Your task to perform on an android device: turn off javascript in the chrome app Image 0: 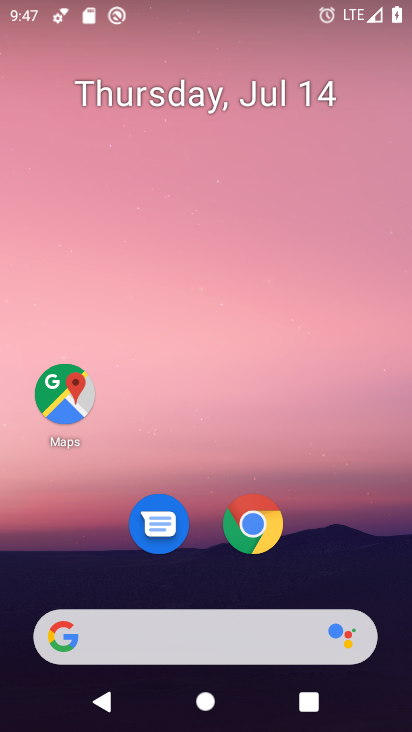
Step 0: click (272, 511)
Your task to perform on an android device: turn off javascript in the chrome app Image 1: 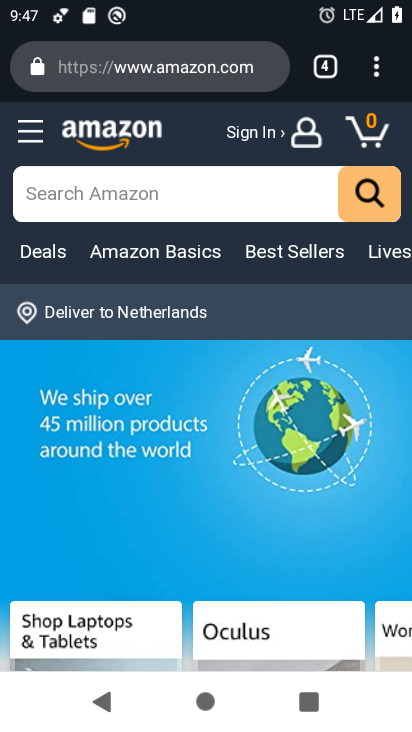
Step 1: click (375, 71)
Your task to perform on an android device: turn off javascript in the chrome app Image 2: 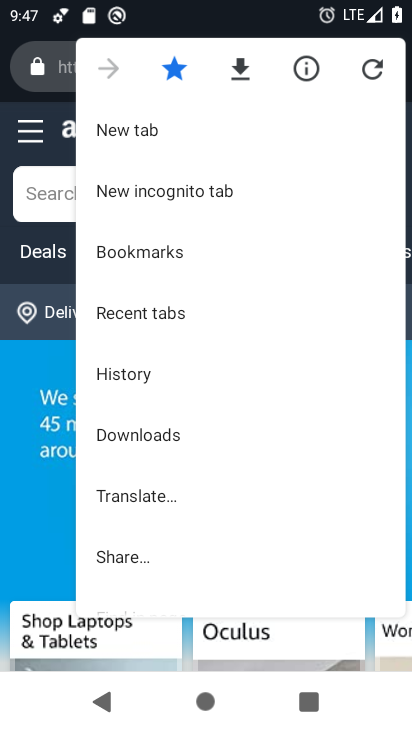
Step 2: drag from (235, 473) to (252, 194)
Your task to perform on an android device: turn off javascript in the chrome app Image 3: 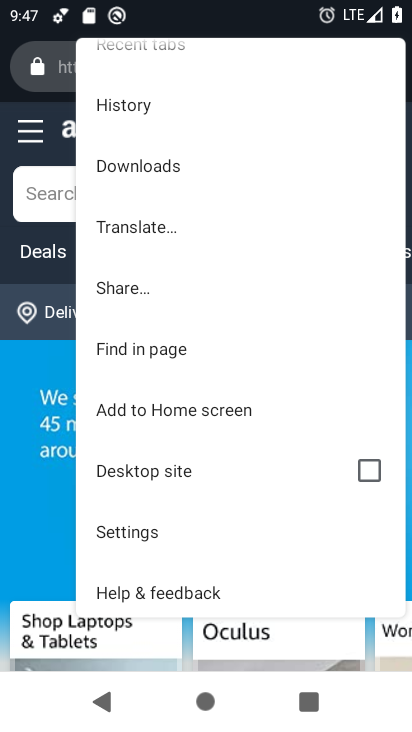
Step 3: click (151, 530)
Your task to perform on an android device: turn off javascript in the chrome app Image 4: 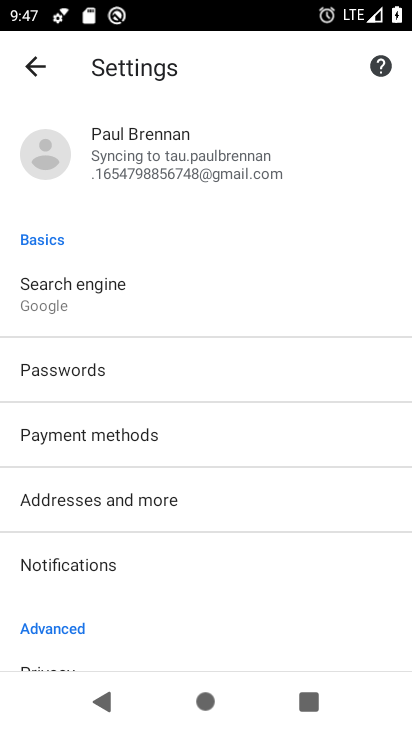
Step 4: drag from (231, 519) to (246, 175)
Your task to perform on an android device: turn off javascript in the chrome app Image 5: 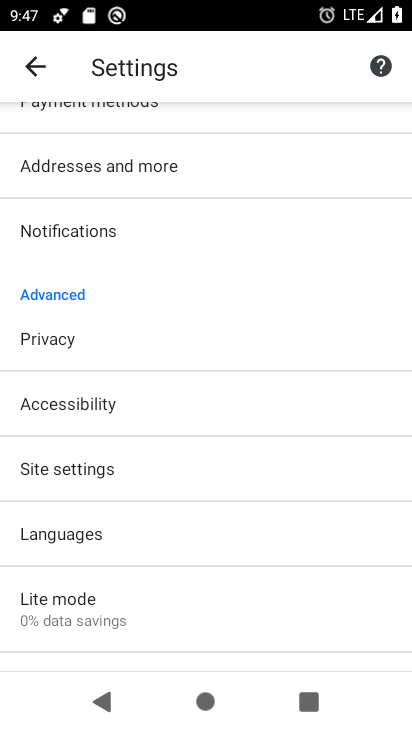
Step 5: click (93, 467)
Your task to perform on an android device: turn off javascript in the chrome app Image 6: 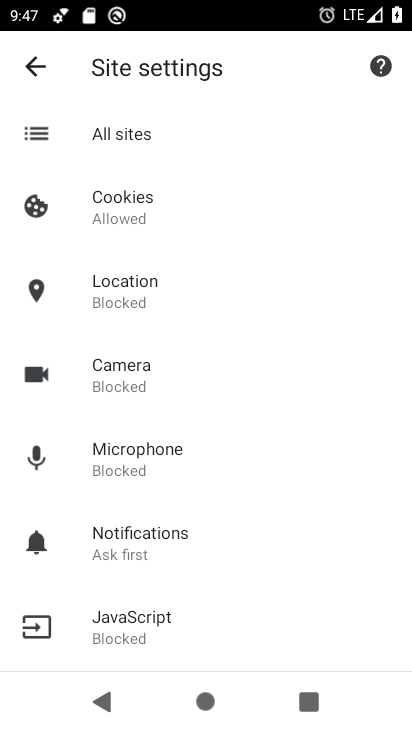
Step 6: click (148, 625)
Your task to perform on an android device: turn off javascript in the chrome app Image 7: 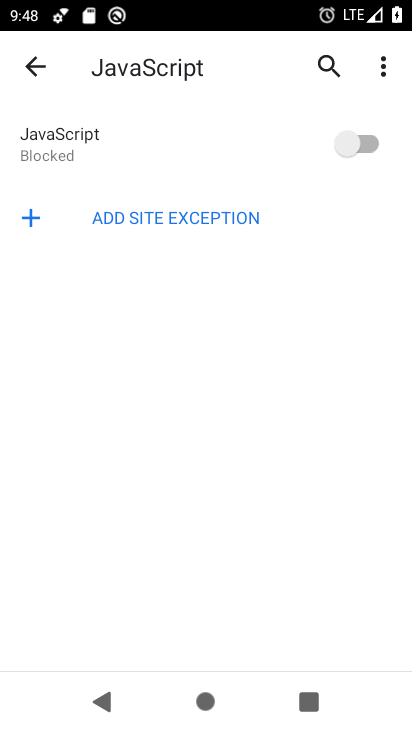
Step 7: task complete